Your task to perform on an android device: Show me recent news Image 0: 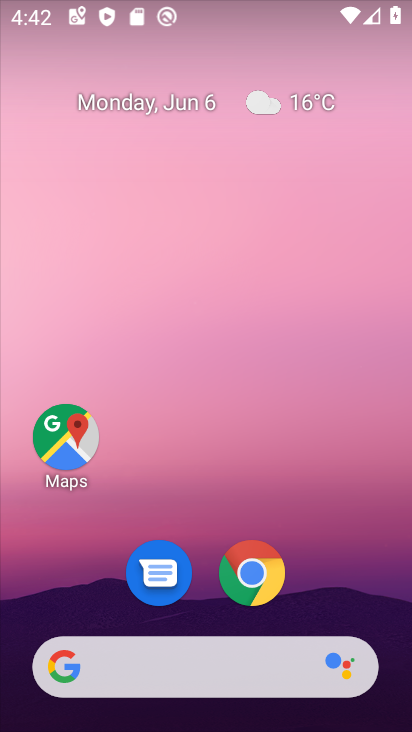
Step 0: drag from (349, 589) to (247, 6)
Your task to perform on an android device: Show me recent news Image 1: 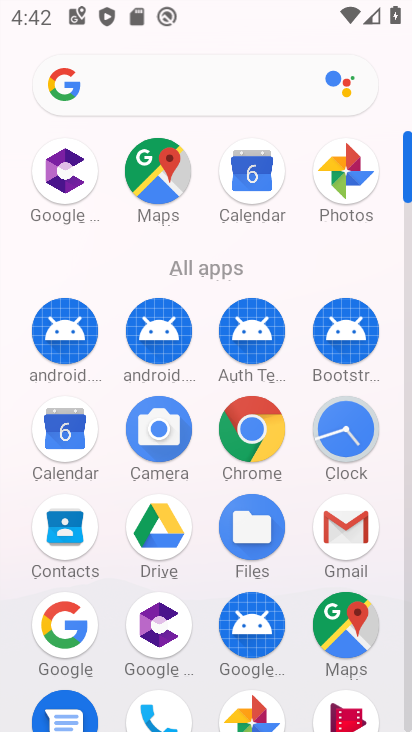
Step 1: click (58, 624)
Your task to perform on an android device: Show me recent news Image 2: 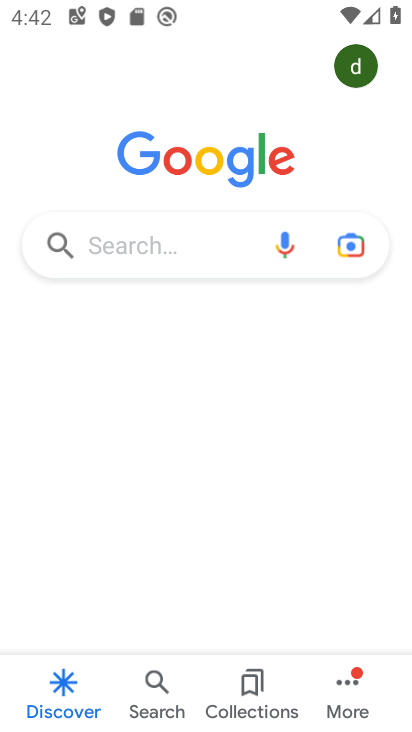
Step 2: click (179, 244)
Your task to perform on an android device: Show me recent news Image 3: 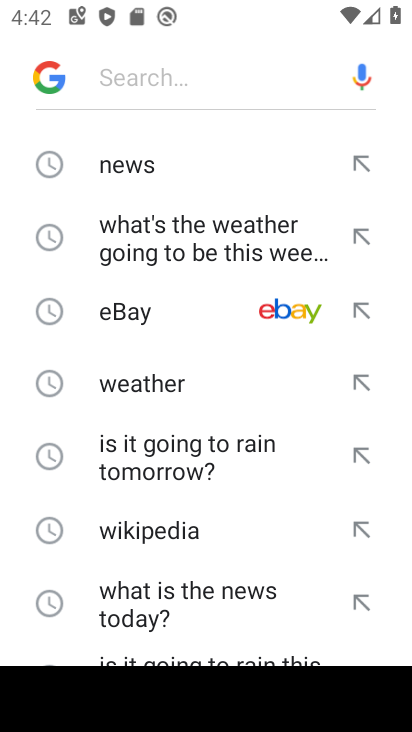
Step 3: type "recent news"
Your task to perform on an android device: Show me recent news Image 4: 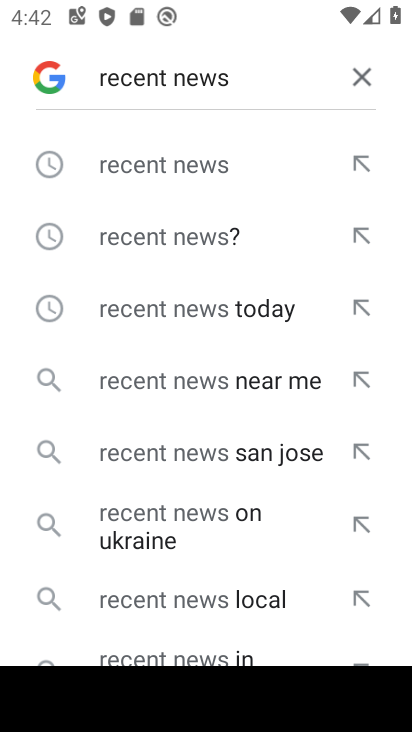
Step 4: click (174, 173)
Your task to perform on an android device: Show me recent news Image 5: 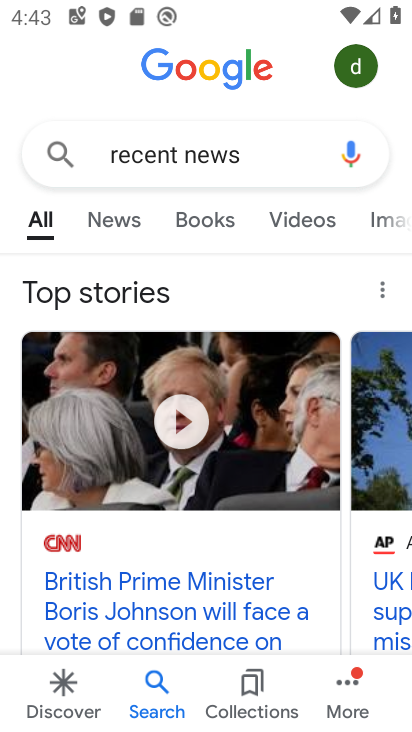
Step 5: task complete